Your task to perform on an android device: Open calendar and show me the second week of next month Image 0: 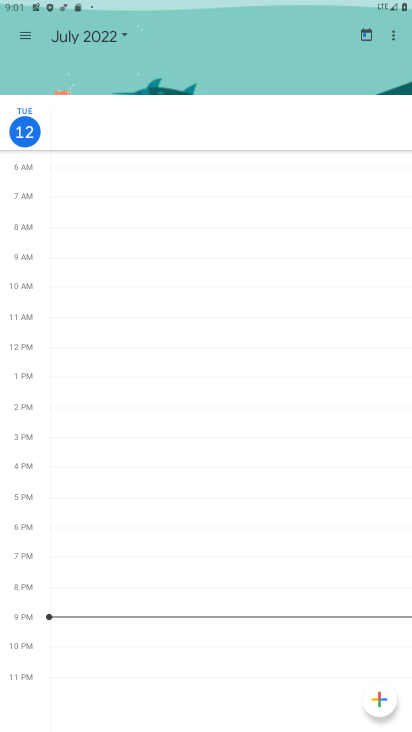
Step 0: press home button
Your task to perform on an android device: Open calendar and show me the second week of next month Image 1: 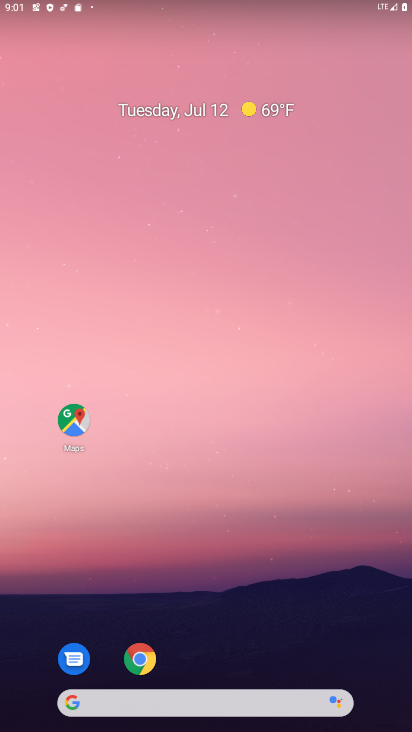
Step 1: click (208, 721)
Your task to perform on an android device: Open calendar and show me the second week of next month Image 2: 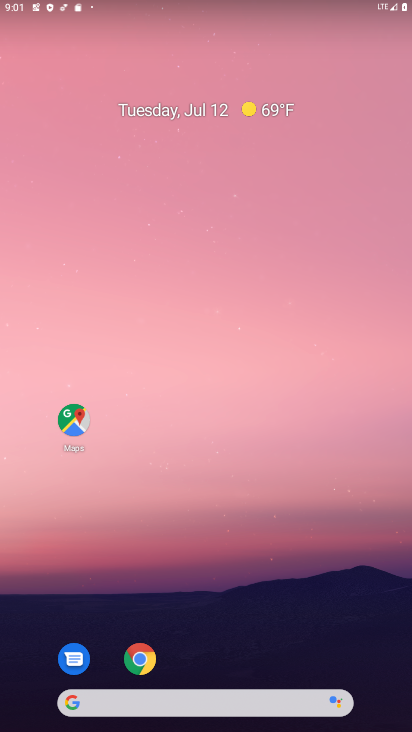
Step 2: drag from (208, 326) to (208, 173)
Your task to perform on an android device: Open calendar and show me the second week of next month Image 3: 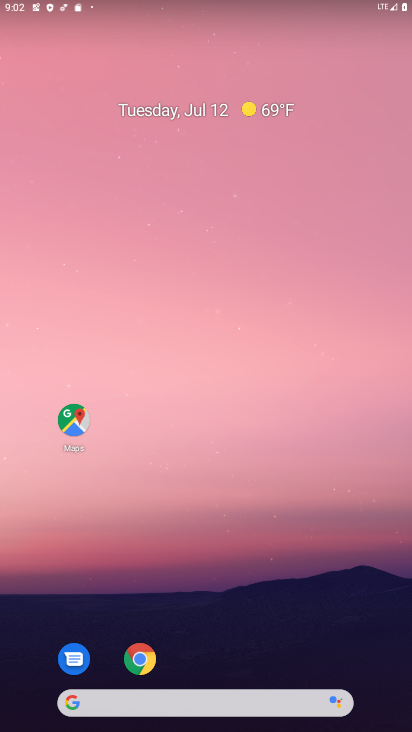
Step 3: drag from (307, 725) to (274, 237)
Your task to perform on an android device: Open calendar and show me the second week of next month Image 4: 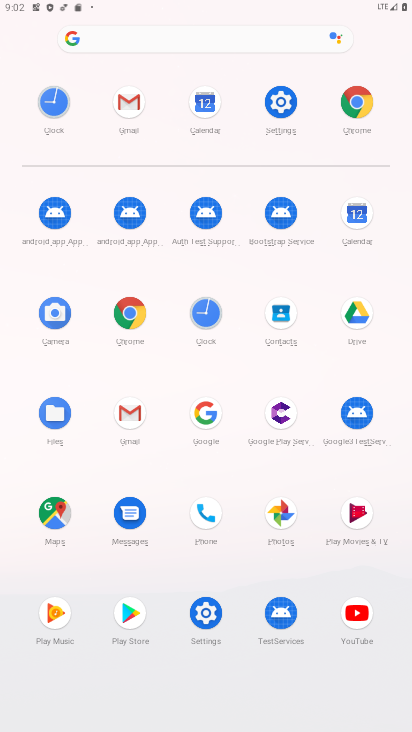
Step 4: click (359, 219)
Your task to perform on an android device: Open calendar and show me the second week of next month Image 5: 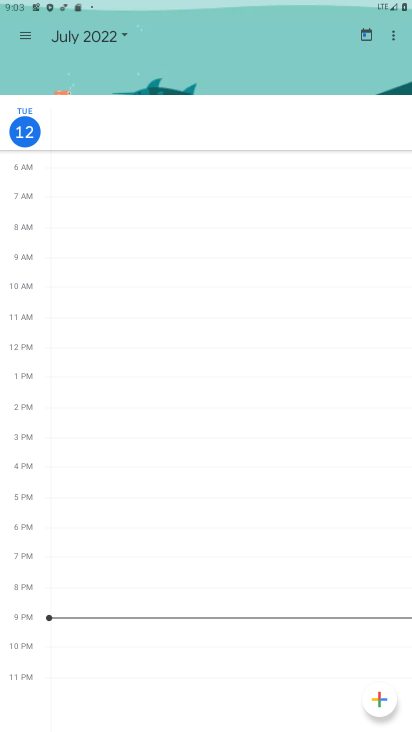
Step 5: click (126, 37)
Your task to perform on an android device: Open calendar and show me the second week of next month Image 6: 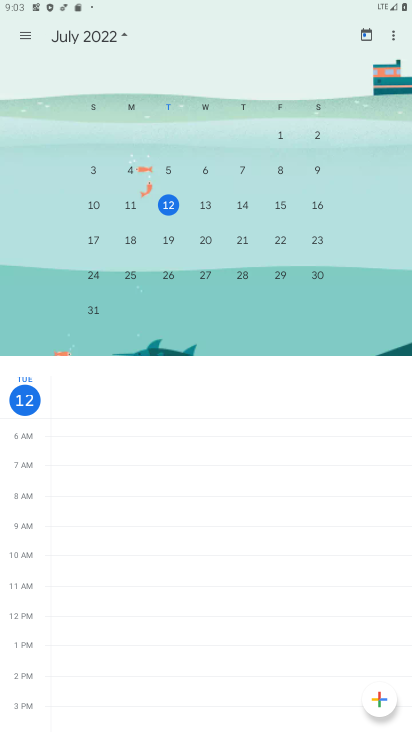
Step 6: drag from (307, 233) to (39, 248)
Your task to perform on an android device: Open calendar and show me the second week of next month Image 7: 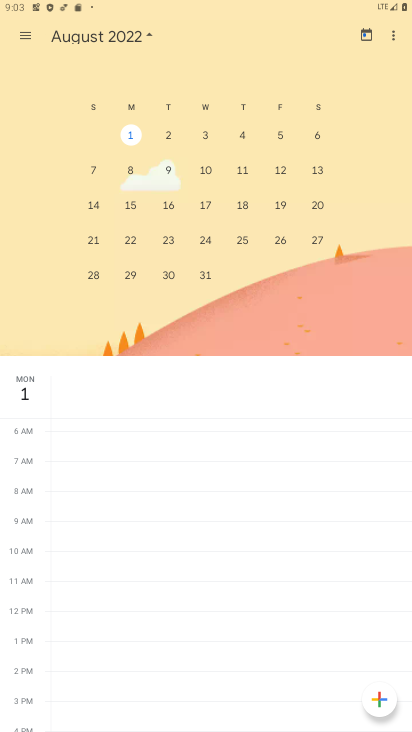
Step 7: click (133, 170)
Your task to perform on an android device: Open calendar and show me the second week of next month Image 8: 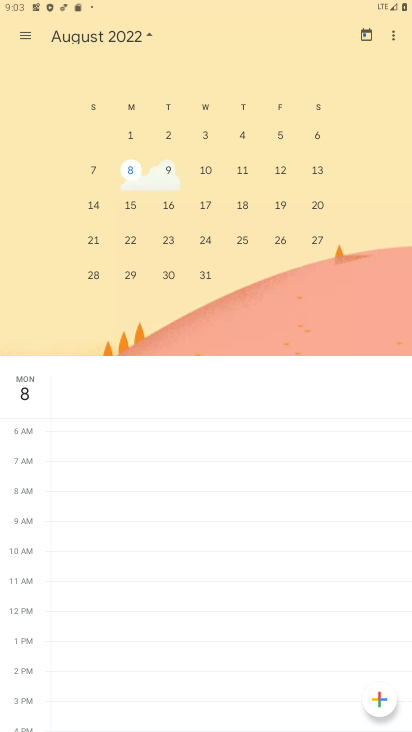
Step 8: click (24, 31)
Your task to perform on an android device: Open calendar and show me the second week of next month Image 9: 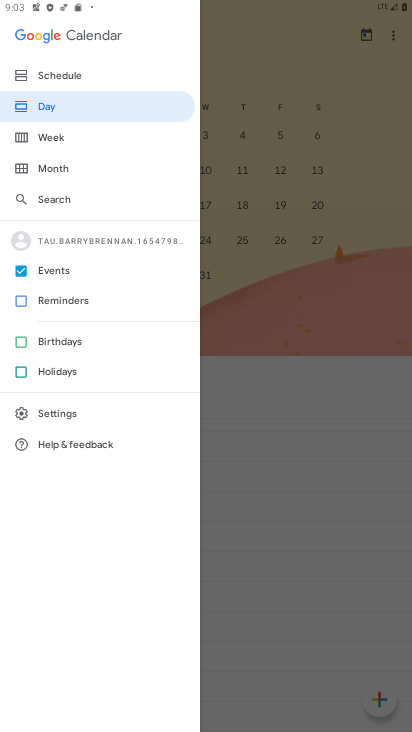
Step 9: click (50, 140)
Your task to perform on an android device: Open calendar and show me the second week of next month Image 10: 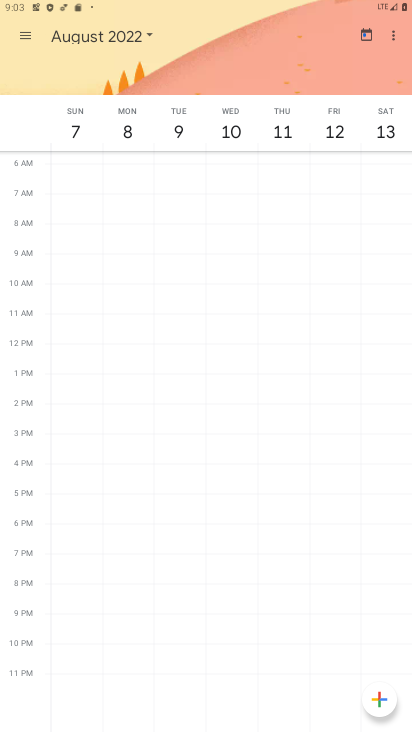
Step 10: task complete